Your task to perform on an android device: toggle notification dots Image 0: 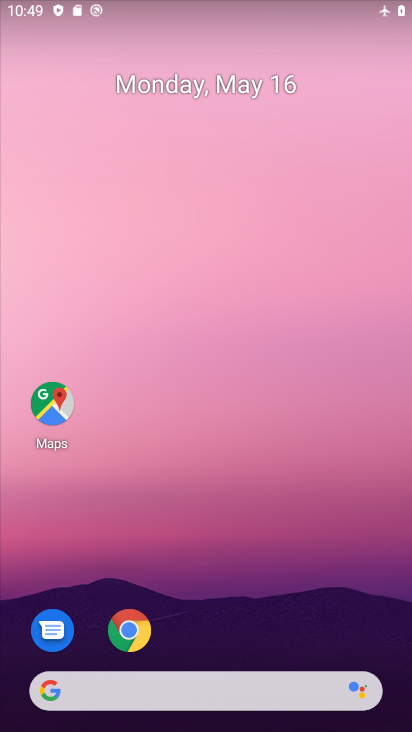
Step 0: drag from (262, 617) to (245, 209)
Your task to perform on an android device: toggle notification dots Image 1: 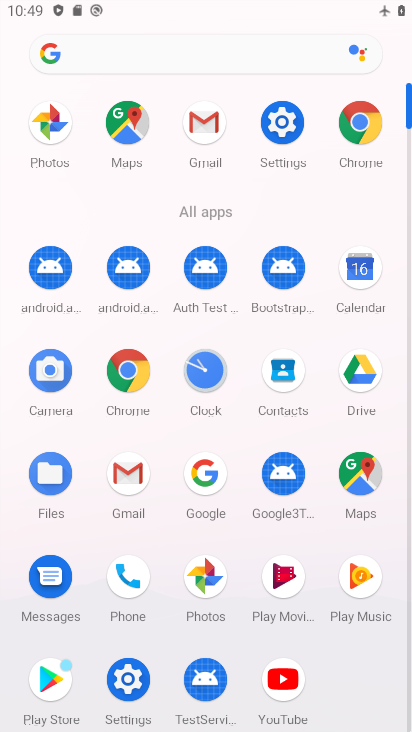
Step 1: click (279, 134)
Your task to perform on an android device: toggle notification dots Image 2: 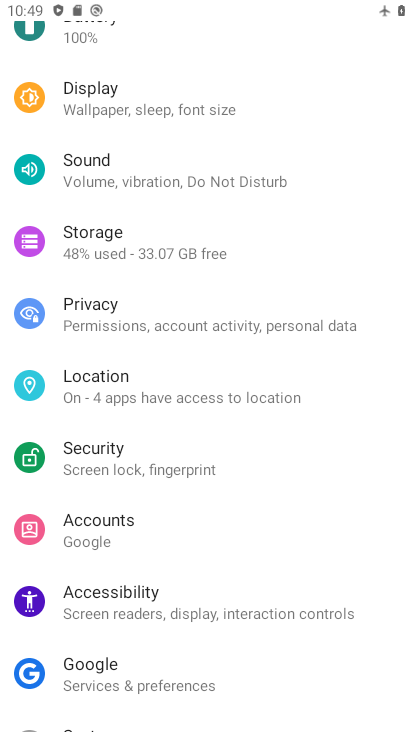
Step 2: drag from (245, 72) to (213, 654)
Your task to perform on an android device: toggle notification dots Image 3: 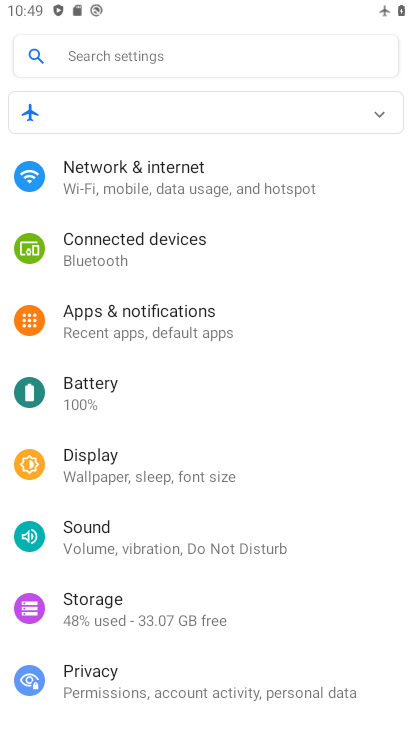
Step 3: click (164, 332)
Your task to perform on an android device: toggle notification dots Image 4: 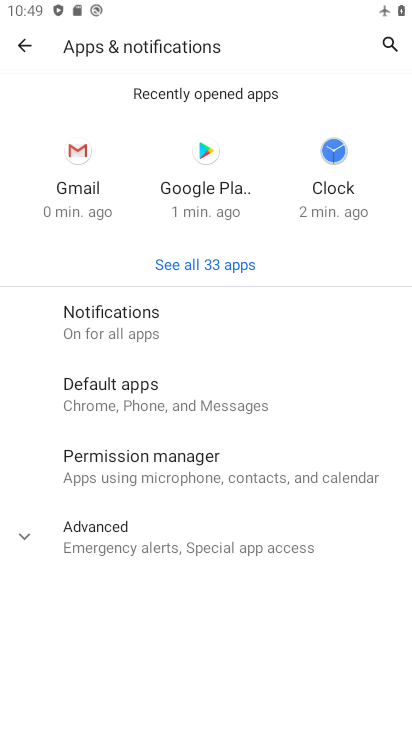
Step 4: click (164, 332)
Your task to perform on an android device: toggle notification dots Image 5: 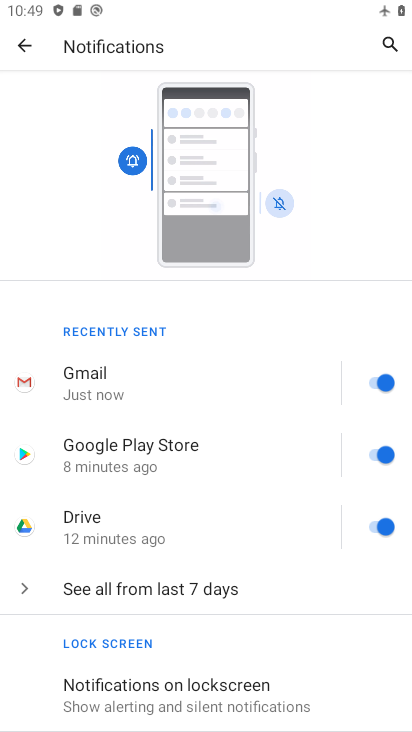
Step 5: drag from (254, 635) to (167, 326)
Your task to perform on an android device: toggle notification dots Image 6: 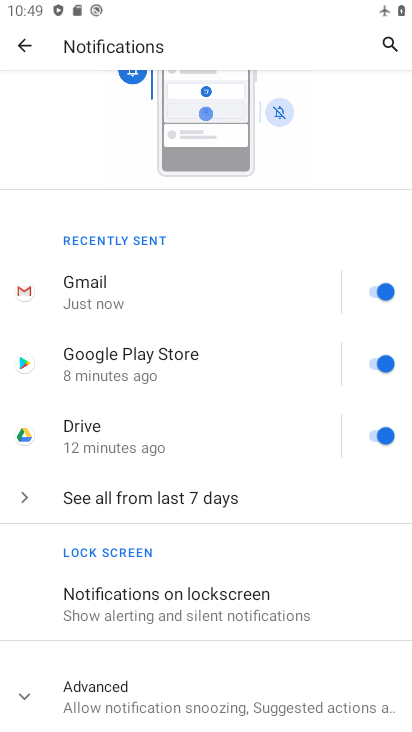
Step 6: click (231, 721)
Your task to perform on an android device: toggle notification dots Image 7: 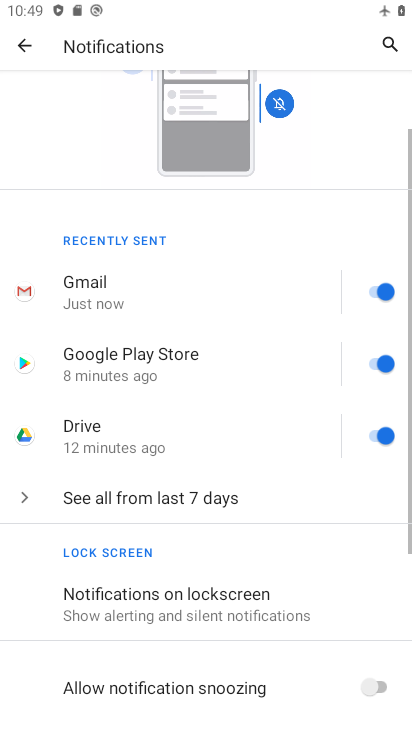
Step 7: drag from (231, 721) to (195, 419)
Your task to perform on an android device: toggle notification dots Image 8: 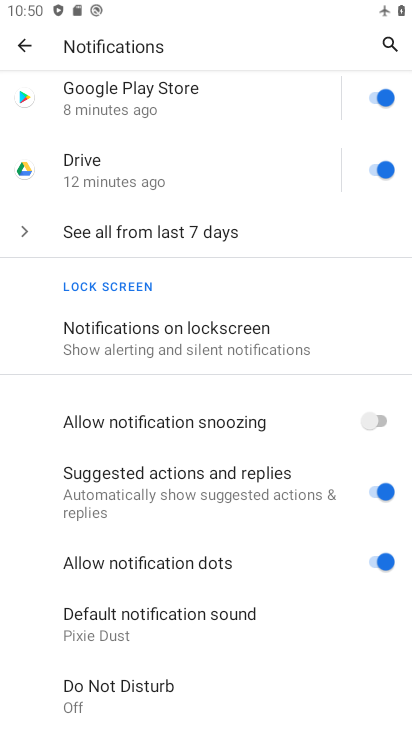
Step 8: click (379, 568)
Your task to perform on an android device: toggle notification dots Image 9: 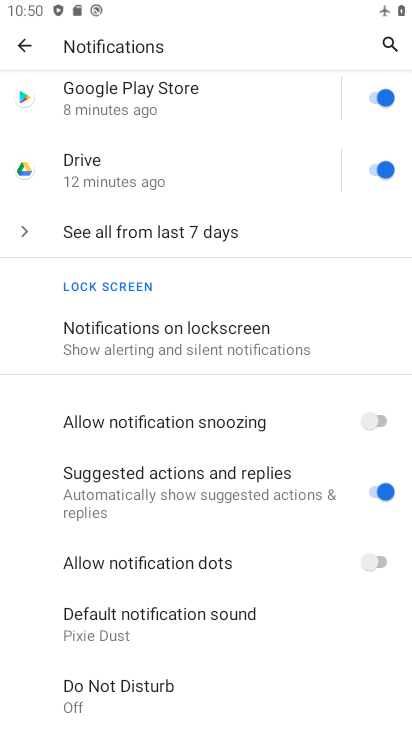
Step 9: task complete